Your task to perform on an android device: Play the last video I watched on Youtube Image 0: 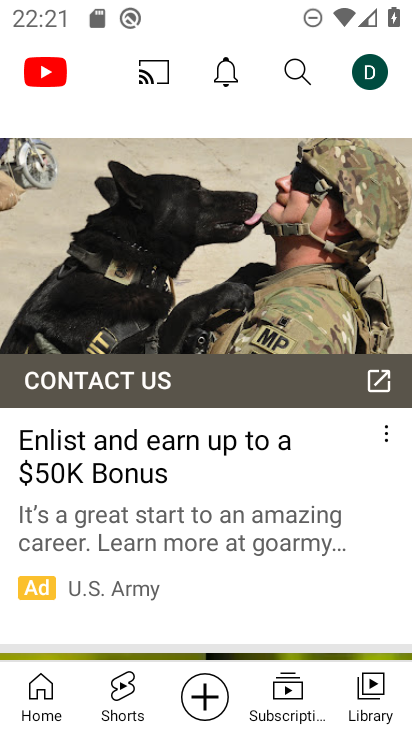
Step 0: click (371, 687)
Your task to perform on an android device: Play the last video I watched on Youtube Image 1: 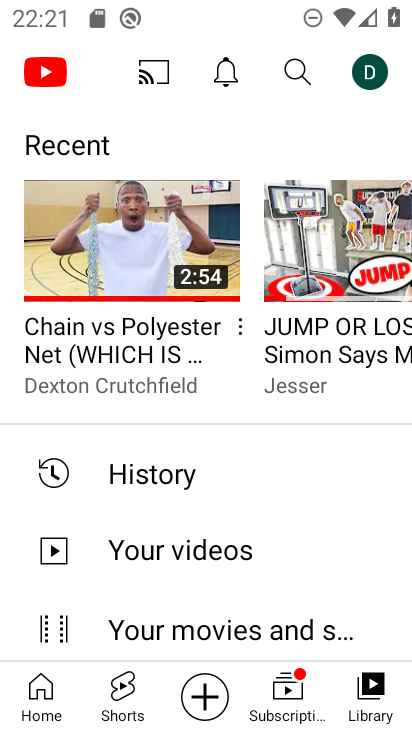
Step 1: click (132, 234)
Your task to perform on an android device: Play the last video I watched on Youtube Image 2: 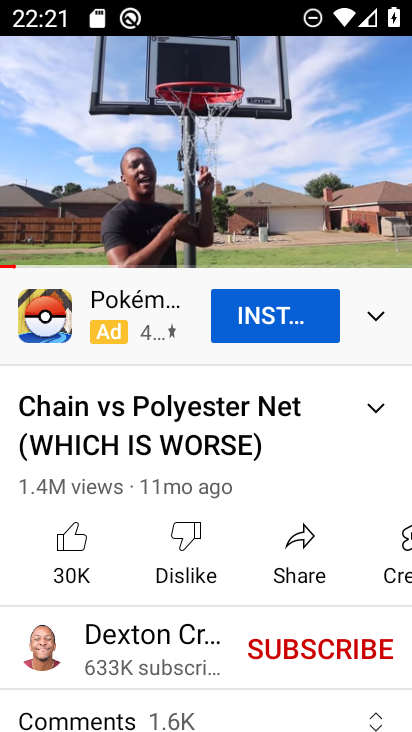
Step 2: task complete